Your task to perform on an android device: Go to battery settings Image 0: 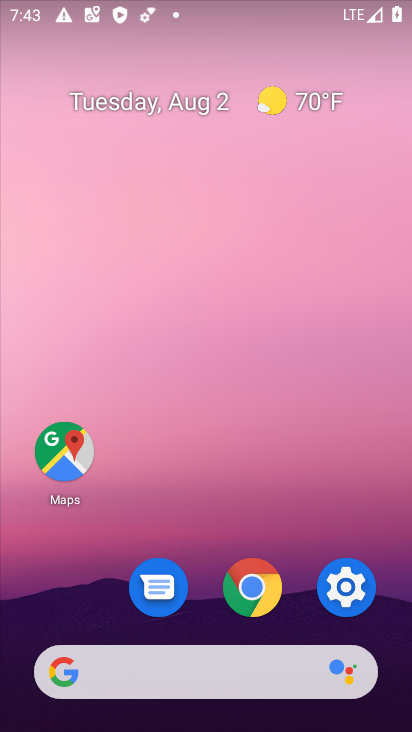
Step 0: click (339, 575)
Your task to perform on an android device: Go to battery settings Image 1: 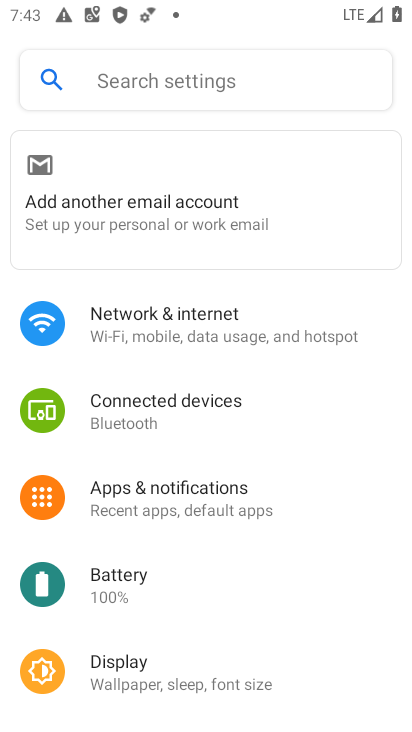
Step 1: click (203, 597)
Your task to perform on an android device: Go to battery settings Image 2: 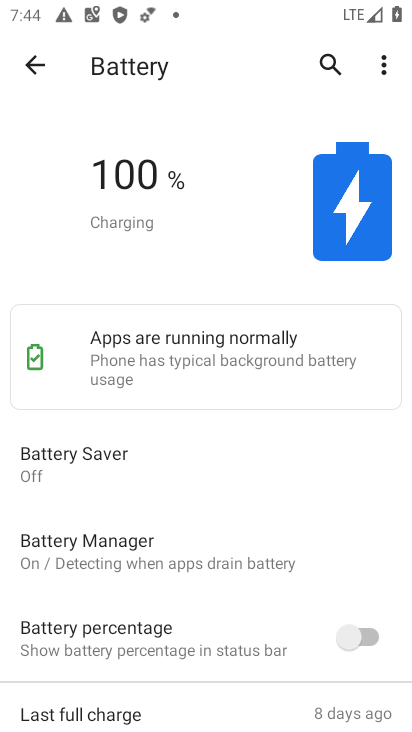
Step 2: task complete